Your task to perform on an android device: When is my next meeting? Image 0: 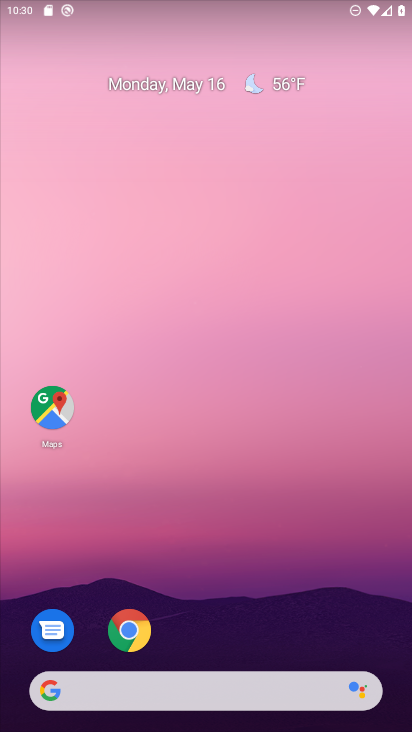
Step 0: drag from (233, 609) to (249, 129)
Your task to perform on an android device: When is my next meeting? Image 1: 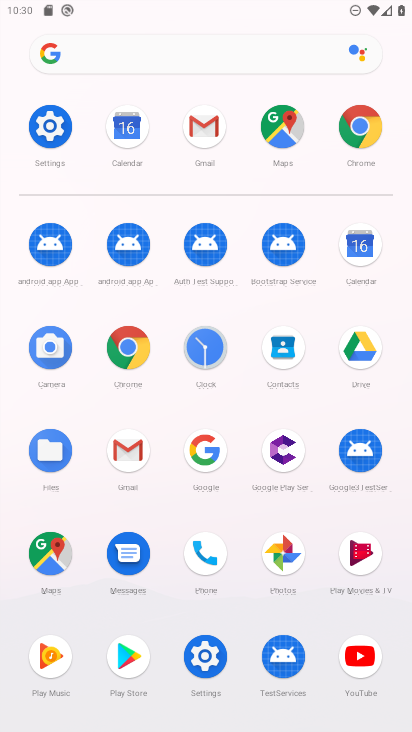
Step 1: click (375, 237)
Your task to perform on an android device: When is my next meeting? Image 2: 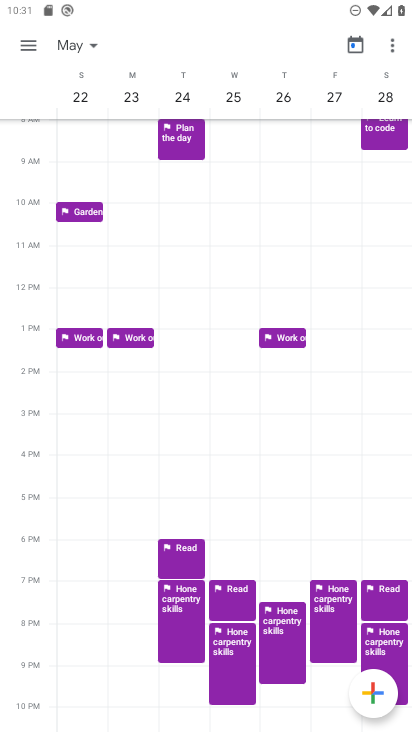
Step 2: click (24, 42)
Your task to perform on an android device: When is my next meeting? Image 3: 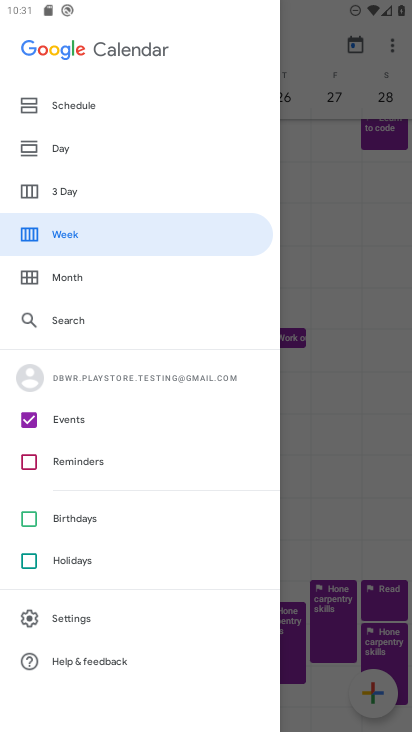
Step 3: click (110, 116)
Your task to perform on an android device: When is my next meeting? Image 4: 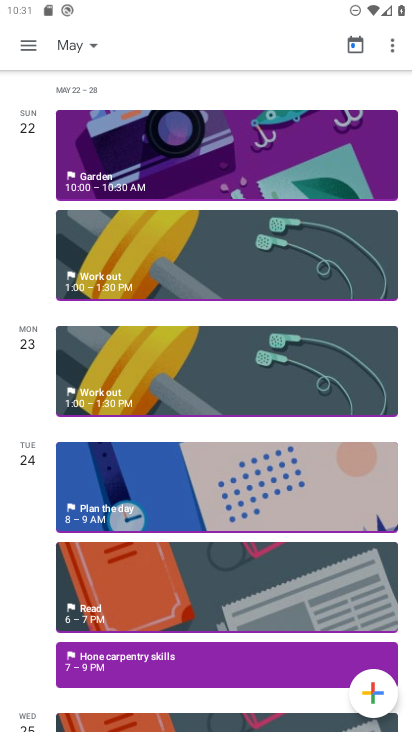
Step 4: task complete